Your task to perform on an android device: turn on location history Image 0: 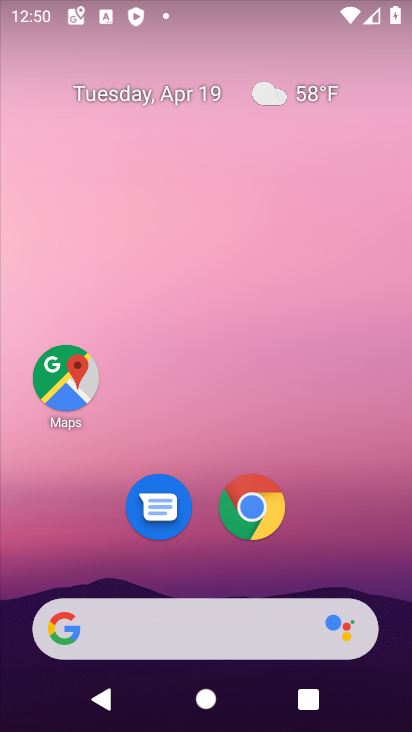
Step 0: drag from (204, 534) to (210, 55)
Your task to perform on an android device: turn on location history Image 1: 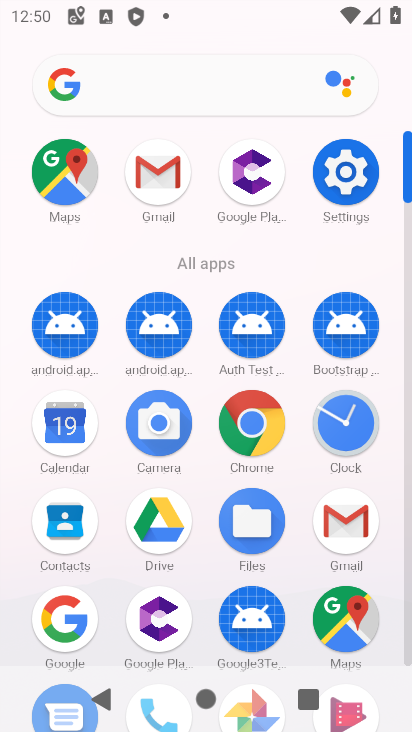
Step 1: click (328, 170)
Your task to perform on an android device: turn on location history Image 2: 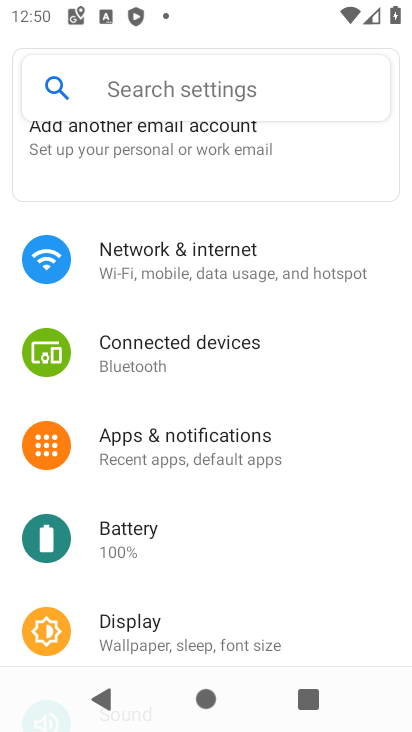
Step 2: drag from (209, 600) to (198, 232)
Your task to perform on an android device: turn on location history Image 3: 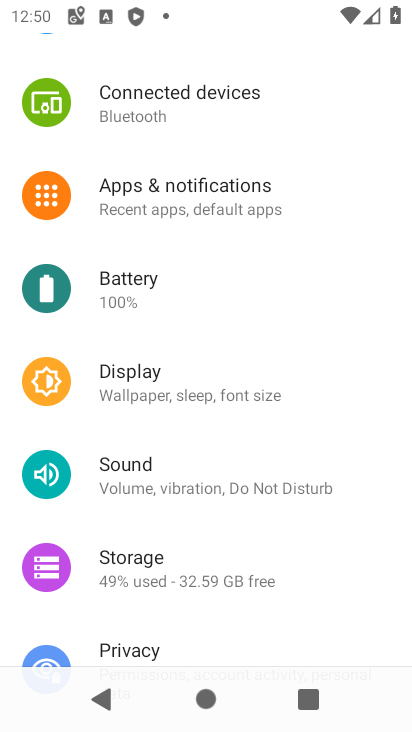
Step 3: drag from (196, 566) to (196, 231)
Your task to perform on an android device: turn on location history Image 4: 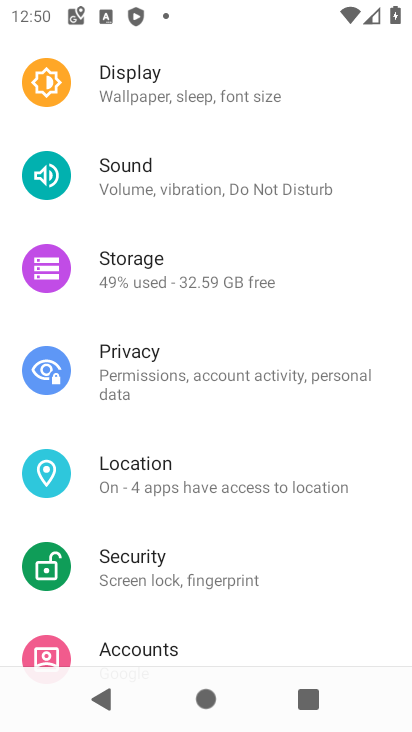
Step 4: click (181, 469)
Your task to perform on an android device: turn on location history Image 5: 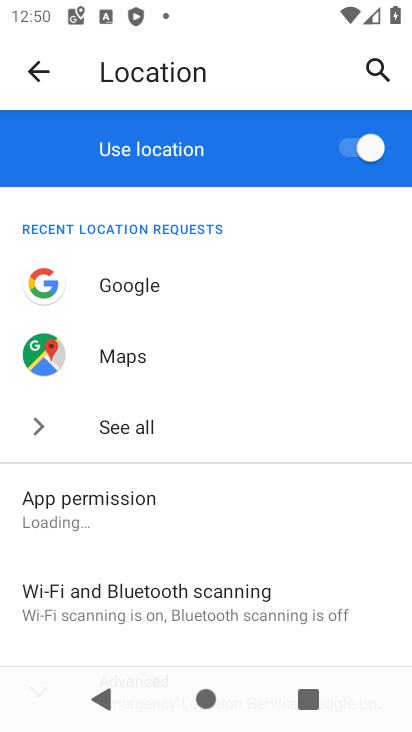
Step 5: drag from (196, 574) to (201, 248)
Your task to perform on an android device: turn on location history Image 6: 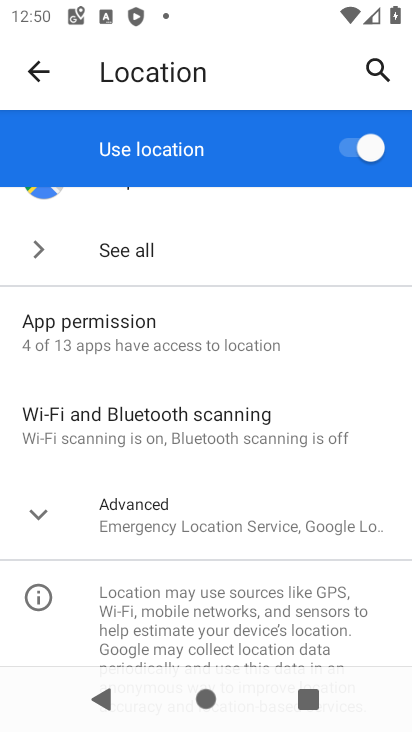
Step 6: click (145, 504)
Your task to perform on an android device: turn on location history Image 7: 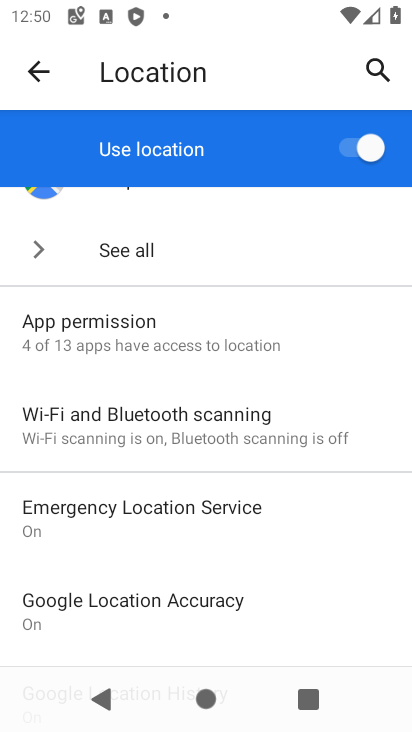
Step 7: drag from (143, 558) to (143, 285)
Your task to perform on an android device: turn on location history Image 8: 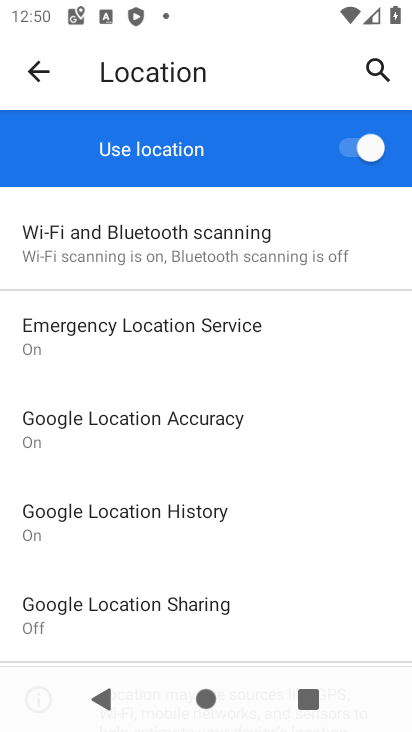
Step 8: click (89, 511)
Your task to perform on an android device: turn on location history Image 9: 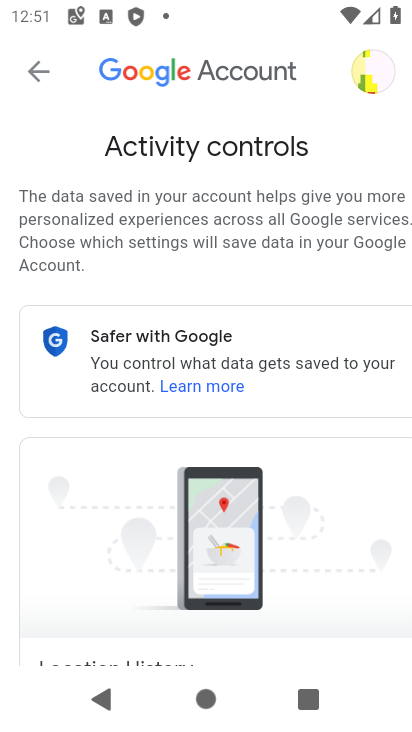
Step 9: task complete